Your task to perform on an android device: make emails show in primary in the gmail app Image 0: 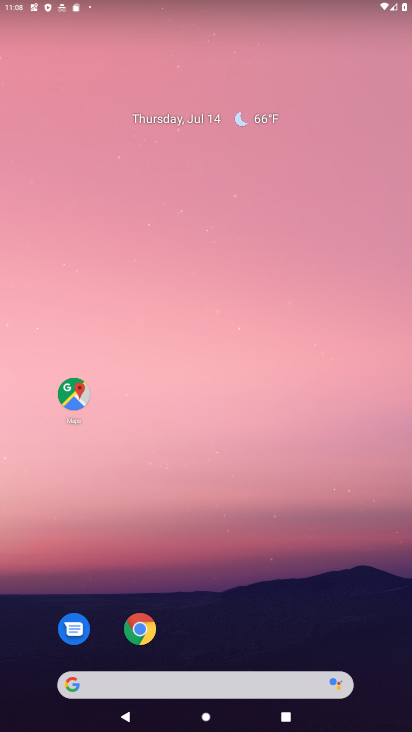
Step 0: press home button
Your task to perform on an android device: make emails show in primary in the gmail app Image 1: 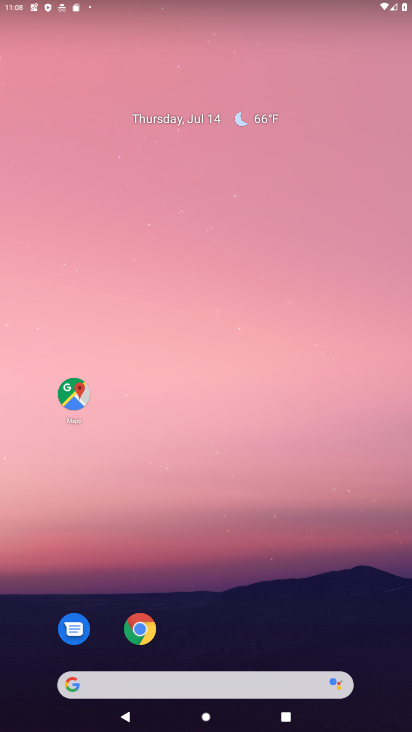
Step 1: press home button
Your task to perform on an android device: make emails show in primary in the gmail app Image 2: 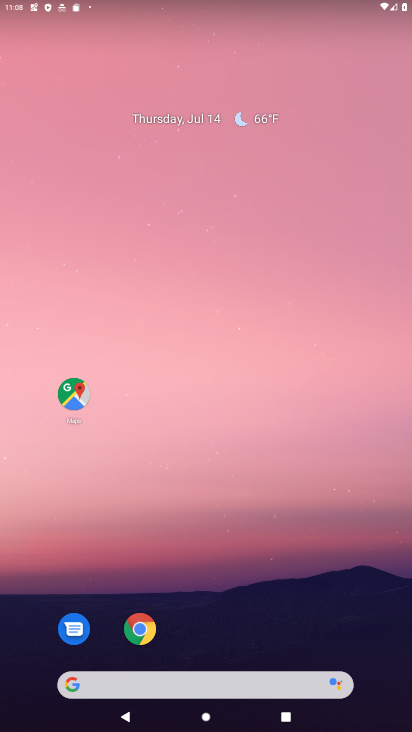
Step 2: press home button
Your task to perform on an android device: make emails show in primary in the gmail app Image 3: 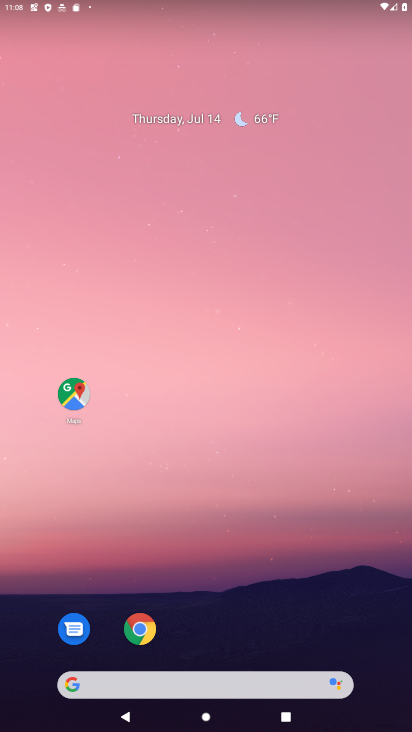
Step 3: press home button
Your task to perform on an android device: make emails show in primary in the gmail app Image 4: 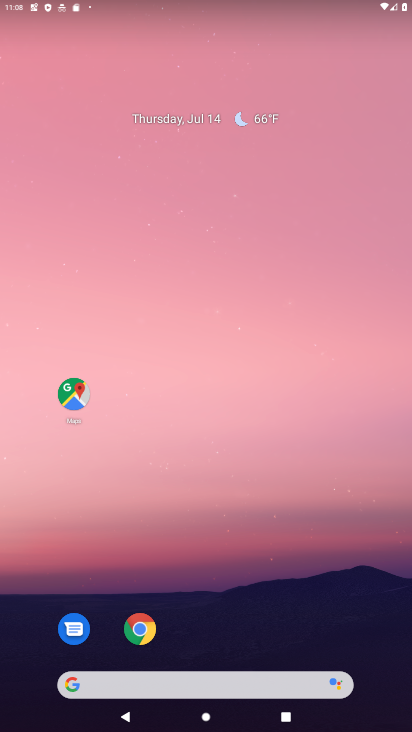
Step 4: press home button
Your task to perform on an android device: make emails show in primary in the gmail app Image 5: 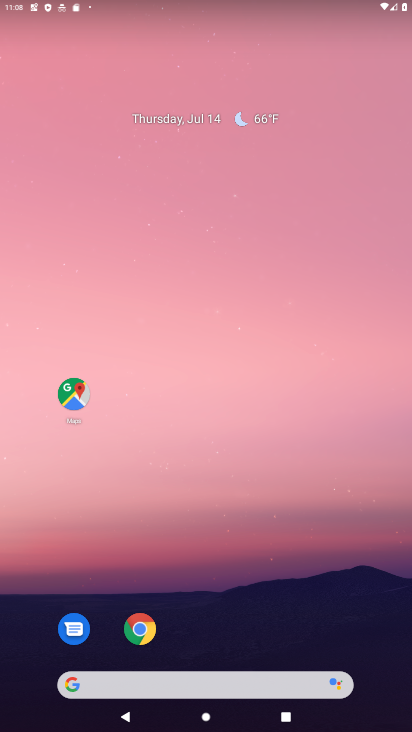
Step 5: drag from (238, 653) to (238, 68)
Your task to perform on an android device: make emails show in primary in the gmail app Image 6: 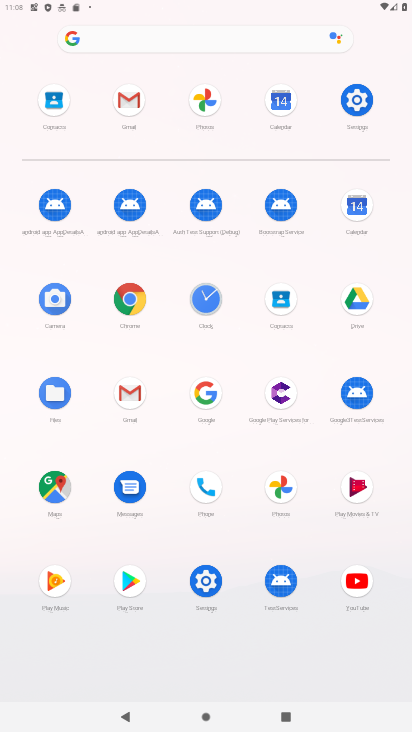
Step 6: click (121, 393)
Your task to perform on an android device: make emails show in primary in the gmail app Image 7: 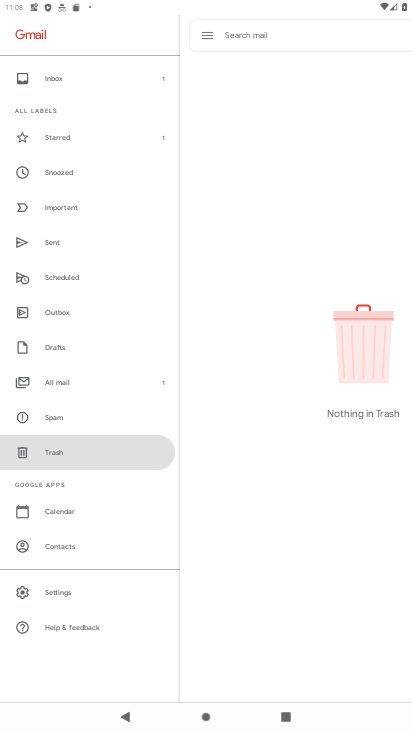
Step 7: click (53, 590)
Your task to perform on an android device: make emails show in primary in the gmail app Image 8: 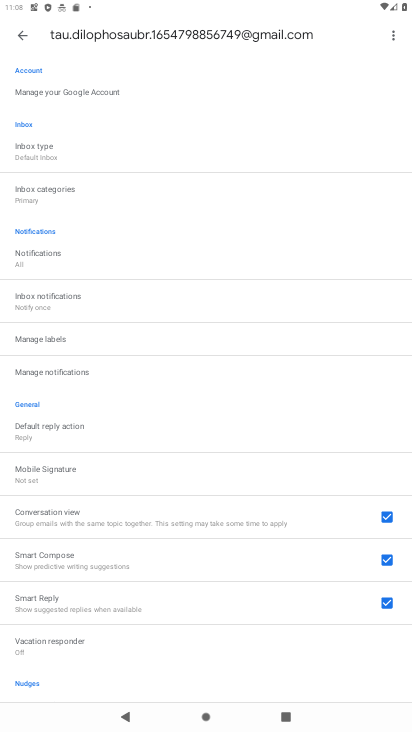
Step 8: click (54, 189)
Your task to perform on an android device: make emails show in primary in the gmail app Image 9: 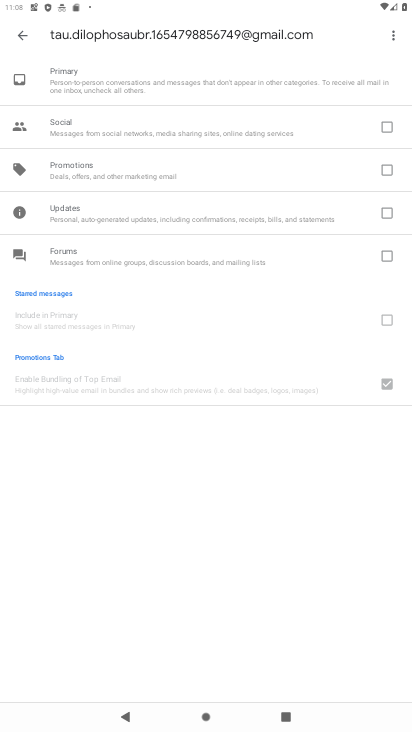
Step 9: task complete